Your task to perform on an android device: Go to CNN.com Image 0: 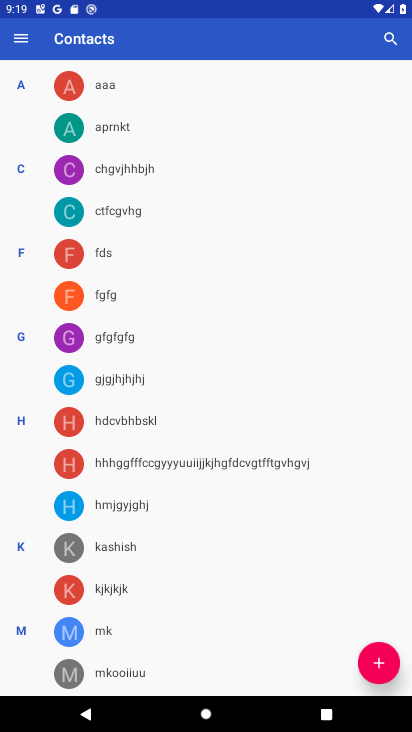
Step 0: press home button
Your task to perform on an android device: Go to CNN.com Image 1: 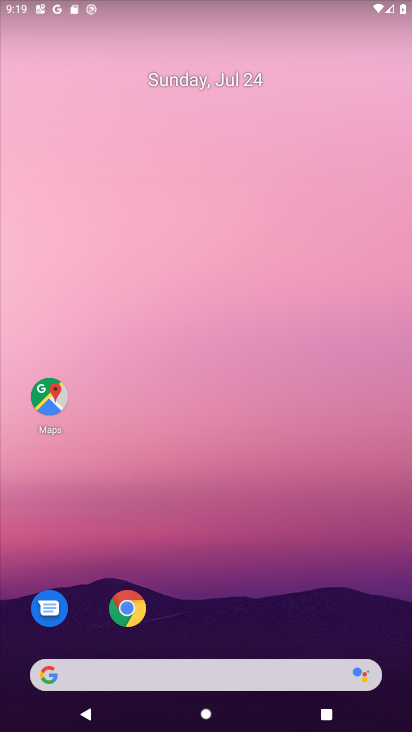
Step 1: click (177, 677)
Your task to perform on an android device: Go to CNN.com Image 2: 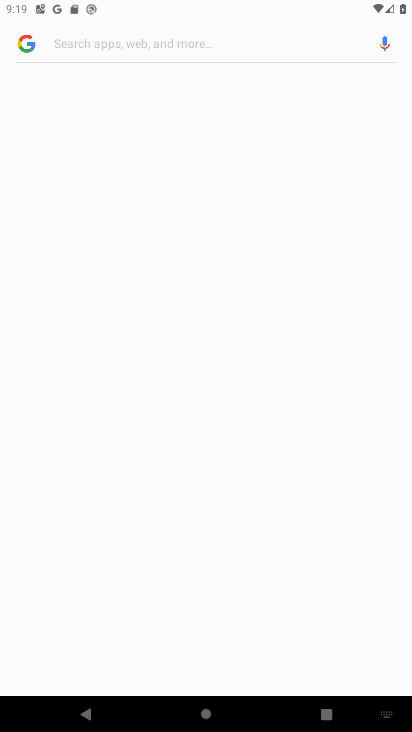
Step 2: click (177, 677)
Your task to perform on an android device: Go to CNN.com Image 3: 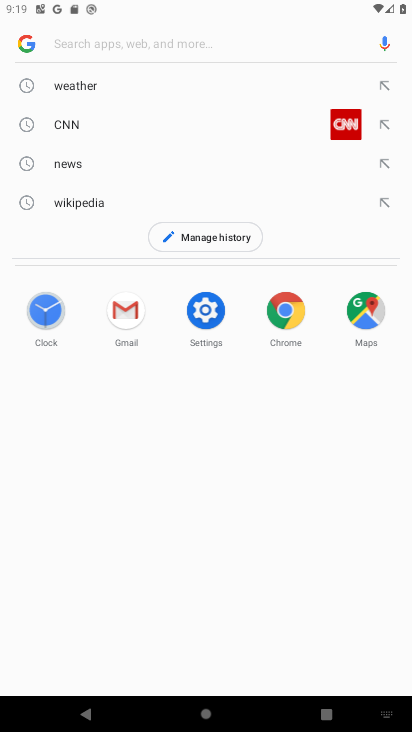
Step 3: click (139, 124)
Your task to perform on an android device: Go to CNN.com Image 4: 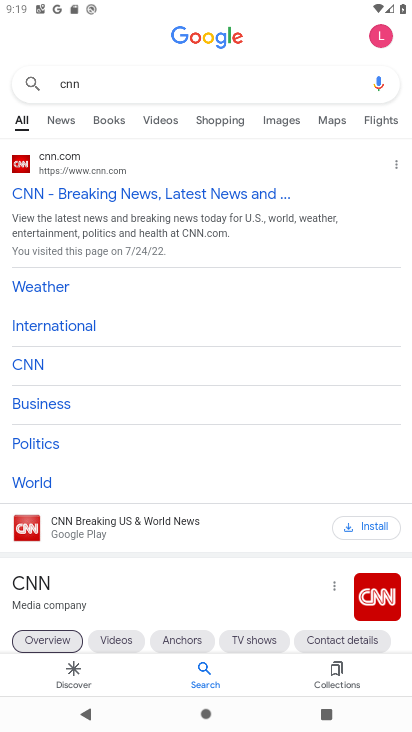
Step 4: task complete